Your task to perform on an android device: clear history in the chrome app Image 0: 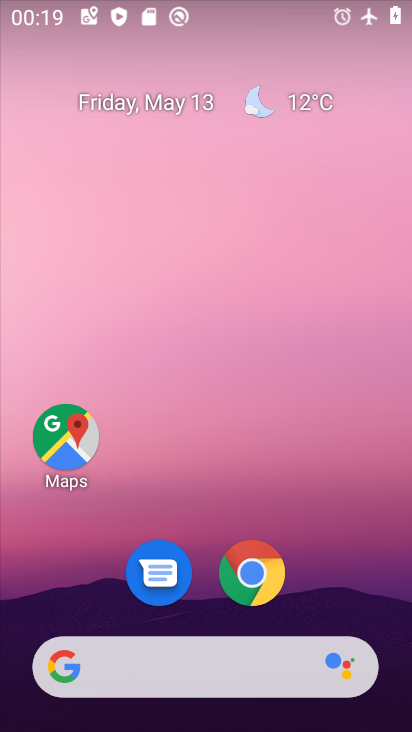
Step 0: click (248, 575)
Your task to perform on an android device: clear history in the chrome app Image 1: 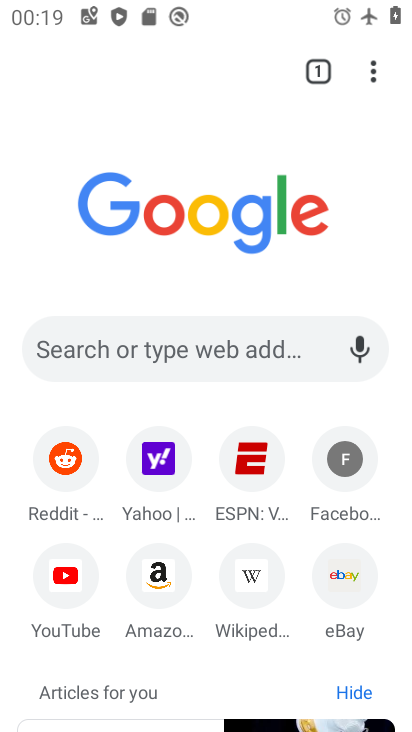
Step 1: click (370, 70)
Your task to perform on an android device: clear history in the chrome app Image 2: 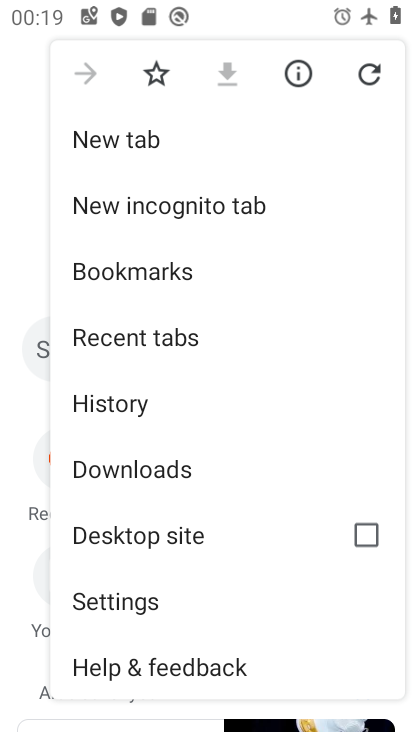
Step 2: click (107, 396)
Your task to perform on an android device: clear history in the chrome app Image 3: 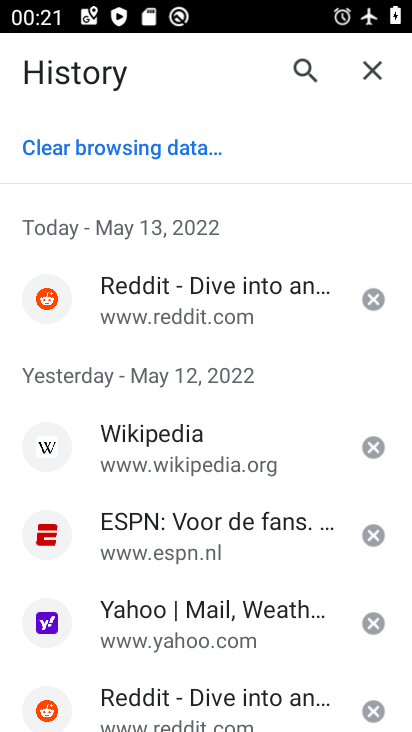
Step 3: click (141, 152)
Your task to perform on an android device: clear history in the chrome app Image 4: 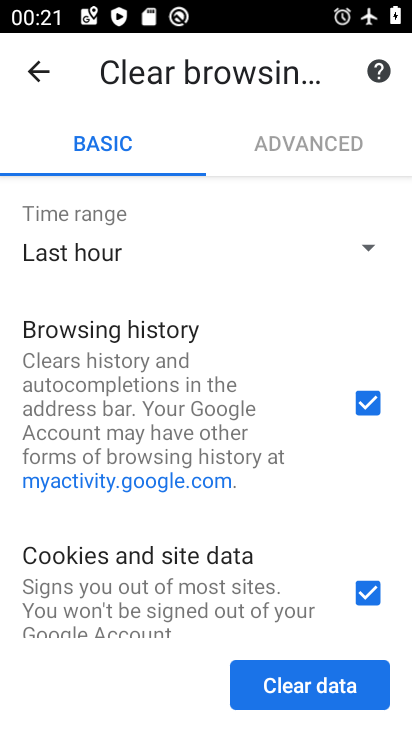
Step 4: click (315, 684)
Your task to perform on an android device: clear history in the chrome app Image 5: 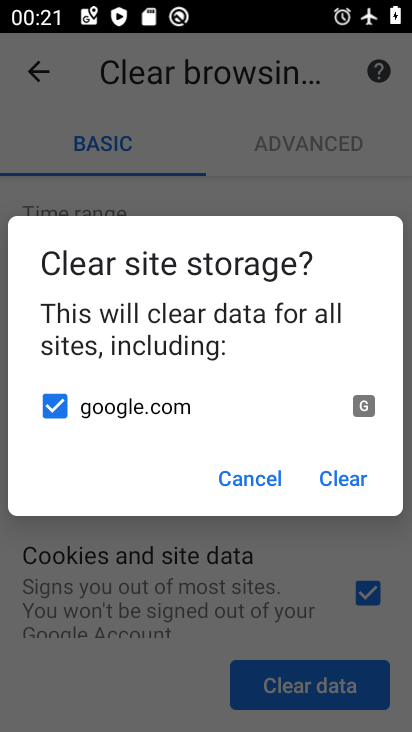
Step 5: click (348, 477)
Your task to perform on an android device: clear history in the chrome app Image 6: 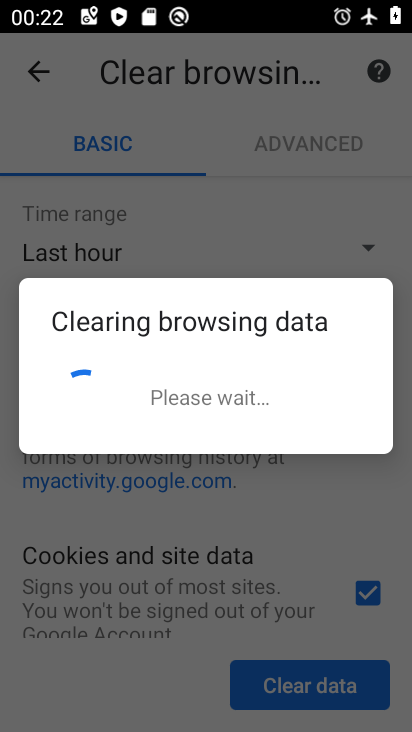
Step 6: task complete